Your task to perform on an android device: choose inbox layout in the gmail app Image 0: 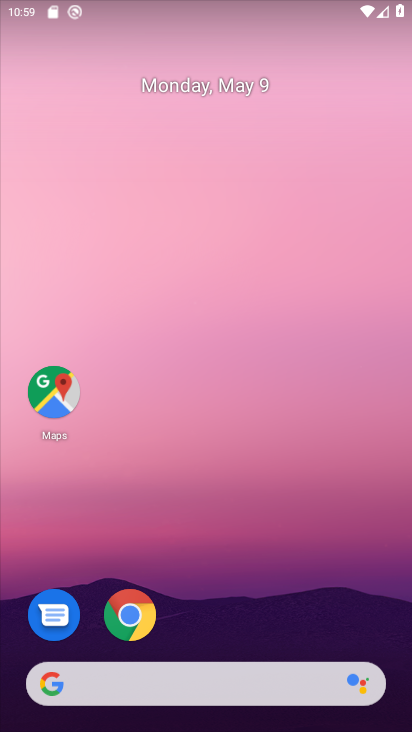
Step 0: drag from (227, 726) to (227, 159)
Your task to perform on an android device: choose inbox layout in the gmail app Image 1: 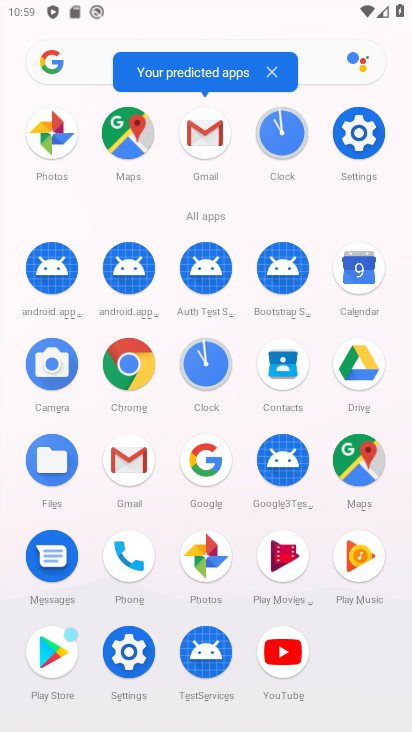
Step 1: click (134, 459)
Your task to perform on an android device: choose inbox layout in the gmail app Image 2: 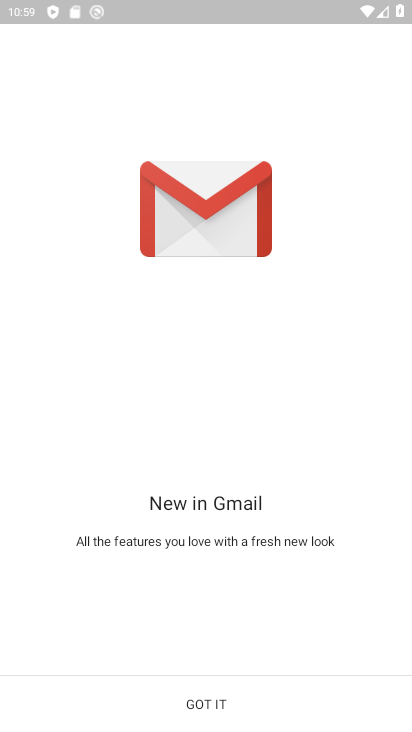
Step 2: click (208, 705)
Your task to perform on an android device: choose inbox layout in the gmail app Image 3: 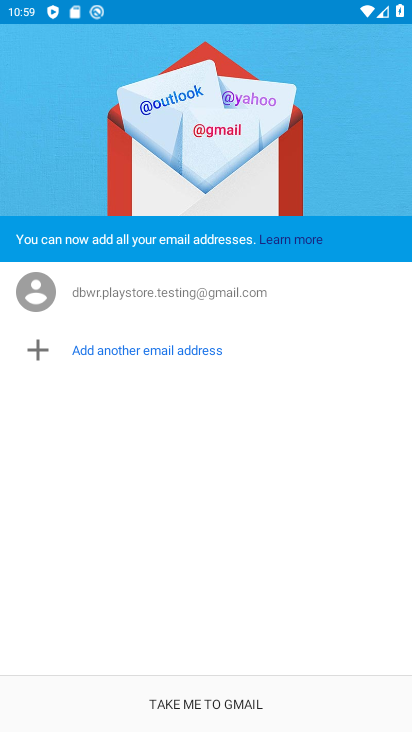
Step 3: click (208, 705)
Your task to perform on an android device: choose inbox layout in the gmail app Image 4: 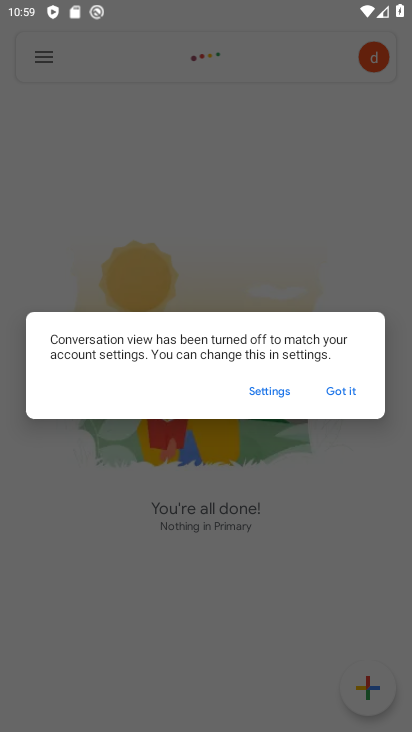
Step 4: click (336, 386)
Your task to perform on an android device: choose inbox layout in the gmail app Image 5: 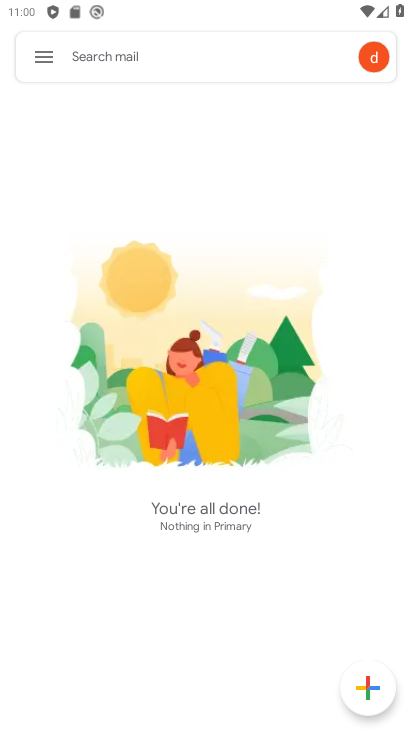
Step 5: click (44, 52)
Your task to perform on an android device: choose inbox layout in the gmail app Image 6: 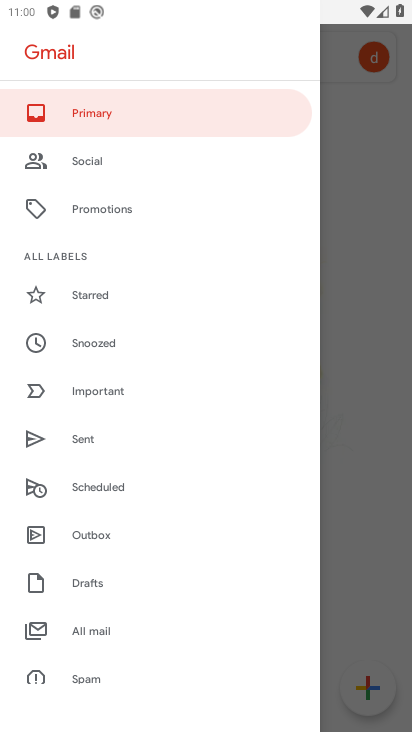
Step 6: drag from (139, 604) to (132, 299)
Your task to perform on an android device: choose inbox layout in the gmail app Image 7: 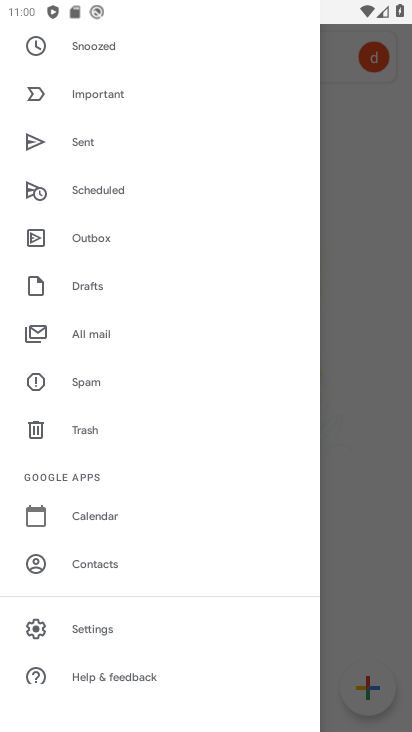
Step 7: drag from (112, 640) to (116, 333)
Your task to perform on an android device: choose inbox layout in the gmail app Image 8: 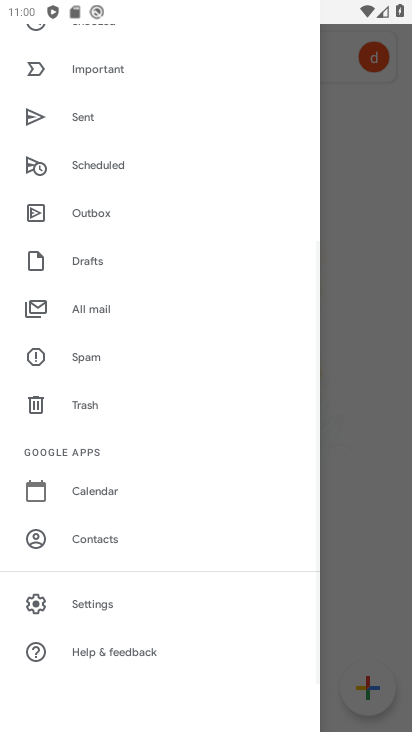
Step 8: click (102, 603)
Your task to perform on an android device: choose inbox layout in the gmail app Image 9: 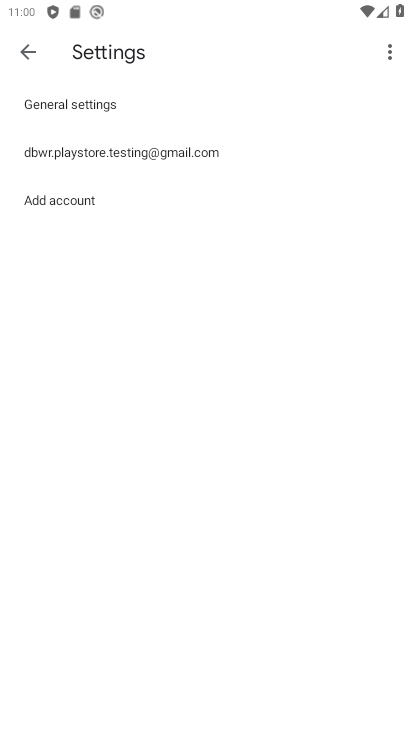
Step 9: click (147, 148)
Your task to perform on an android device: choose inbox layout in the gmail app Image 10: 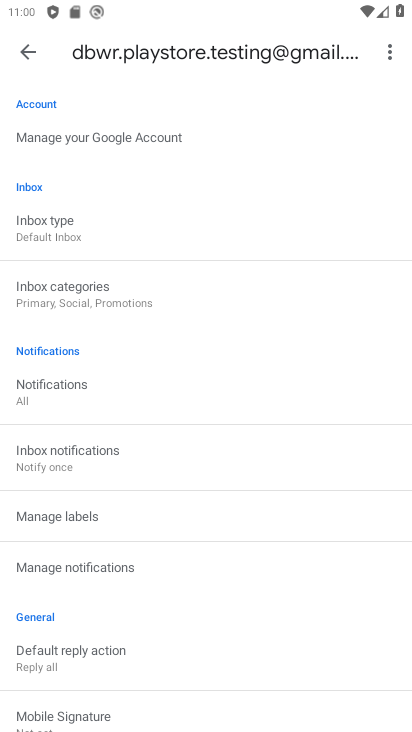
Step 10: click (60, 230)
Your task to perform on an android device: choose inbox layout in the gmail app Image 11: 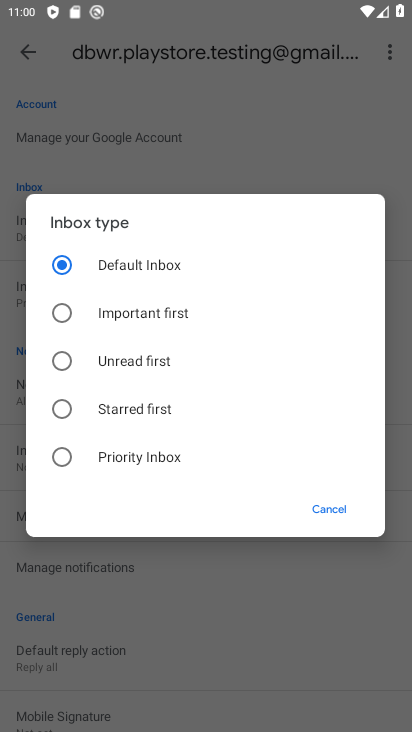
Step 11: click (54, 449)
Your task to perform on an android device: choose inbox layout in the gmail app Image 12: 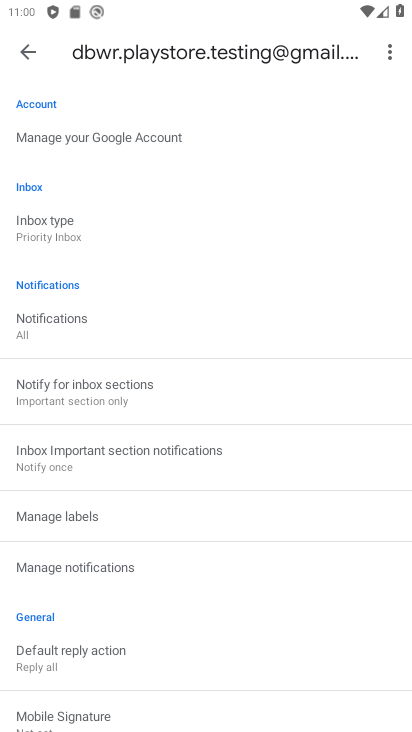
Step 12: task complete